Your task to perform on an android device: What's on my calendar tomorrow? Image 0: 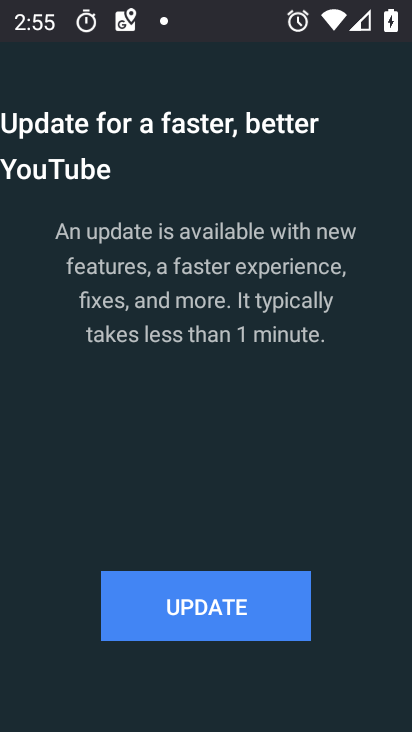
Step 0: press home button
Your task to perform on an android device: What's on my calendar tomorrow? Image 1: 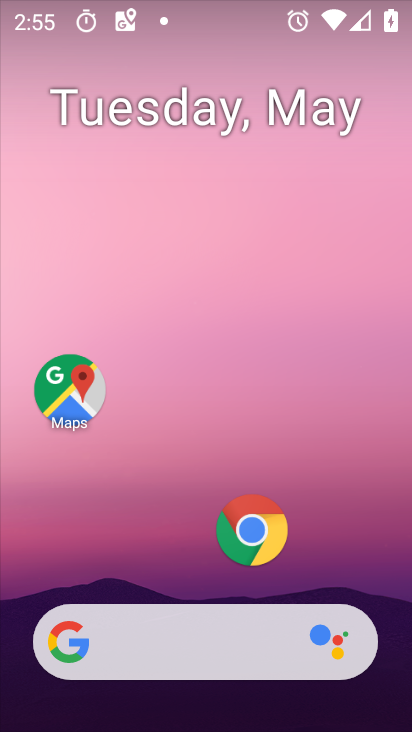
Step 1: drag from (238, 597) to (231, 10)
Your task to perform on an android device: What's on my calendar tomorrow? Image 2: 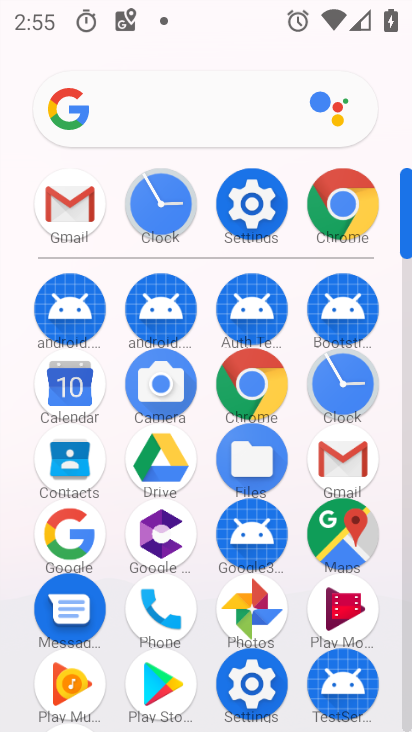
Step 2: click (57, 375)
Your task to perform on an android device: What's on my calendar tomorrow? Image 3: 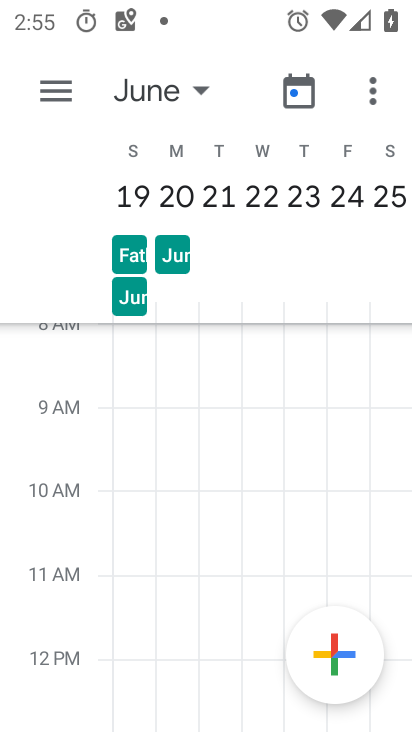
Step 3: click (305, 83)
Your task to perform on an android device: What's on my calendar tomorrow? Image 4: 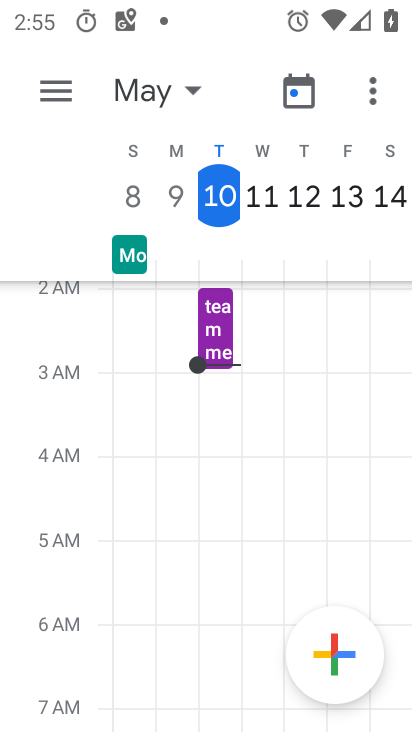
Step 4: click (251, 202)
Your task to perform on an android device: What's on my calendar tomorrow? Image 5: 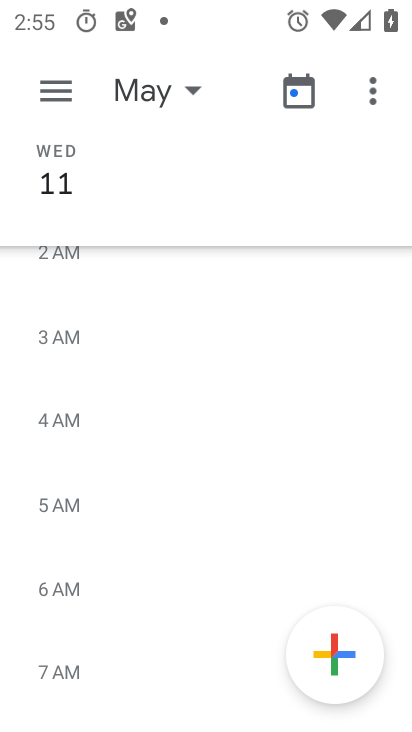
Step 5: task complete